Your task to perform on an android device: turn on bluetooth scan Image 0: 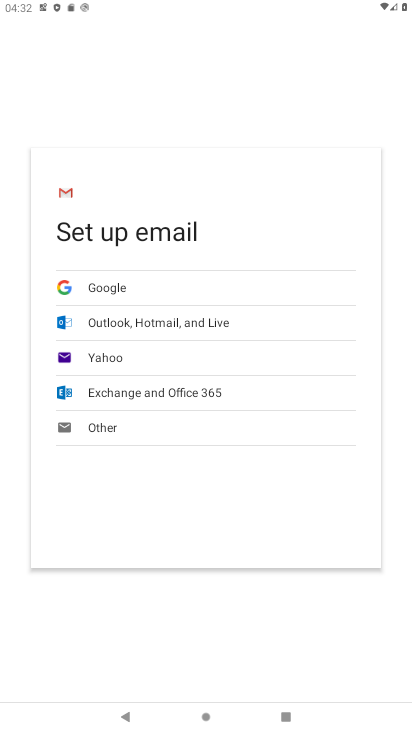
Step 0: press home button
Your task to perform on an android device: turn on bluetooth scan Image 1: 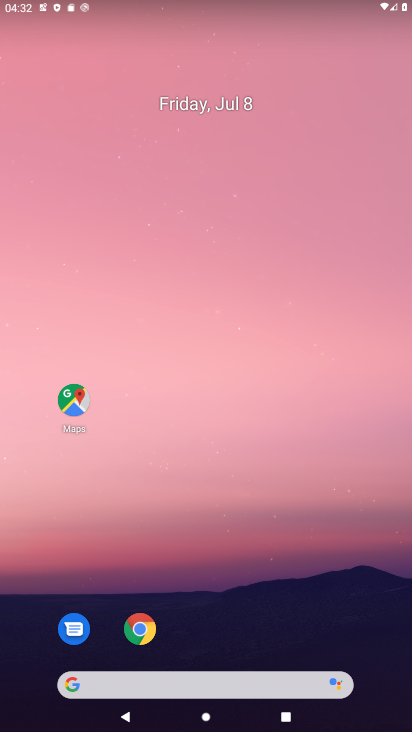
Step 1: drag from (236, 719) to (235, 82)
Your task to perform on an android device: turn on bluetooth scan Image 2: 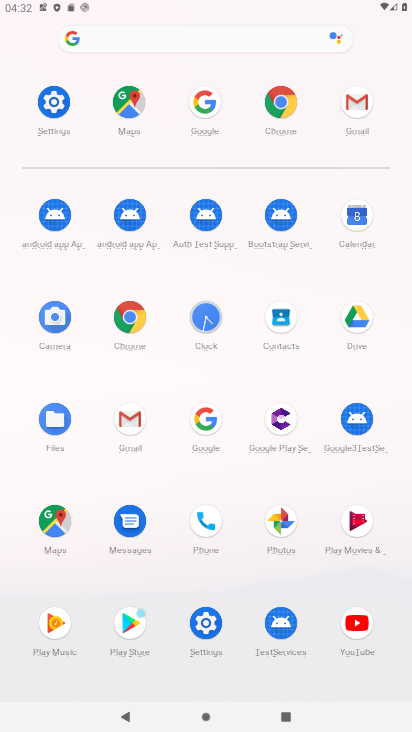
Step 2: click (48, 101)
Your task to perform on an android device: turn on bluetooth scan Image 3: 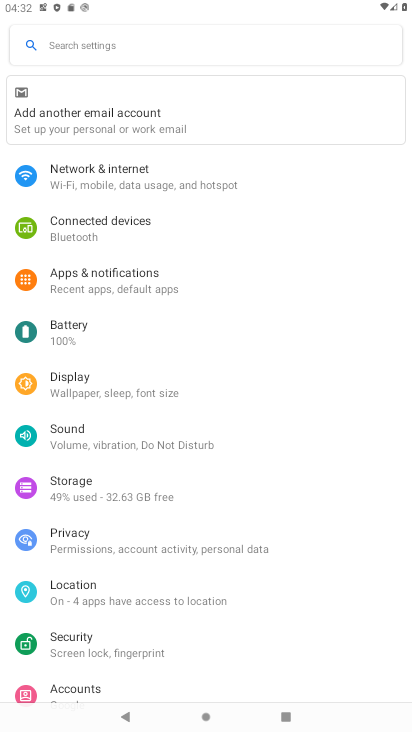
Step 3: click (69, 594)
Your task to perform on an android device: turn on bluetooth scan Image 4: 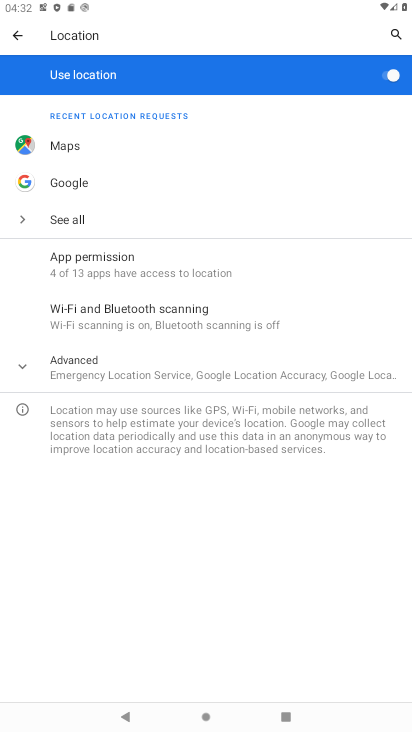
Step 4: click (131, 311)
Your task to perform on an android device: turn on bluetooth scan Image 5: 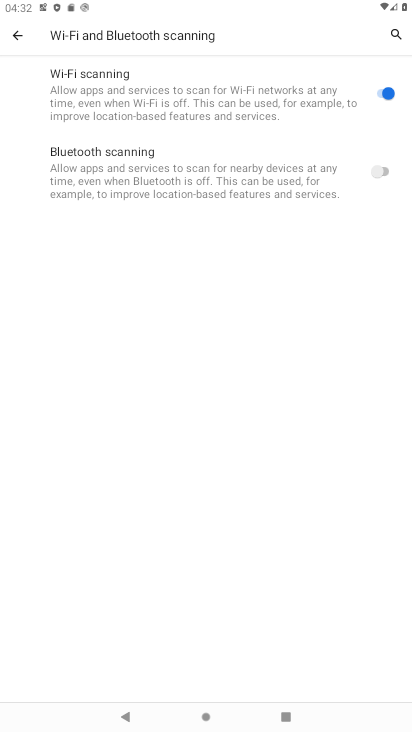
Step 5: click (388, 173)
Your task to perform on an android device: turn on bluetooth scan Image 6: 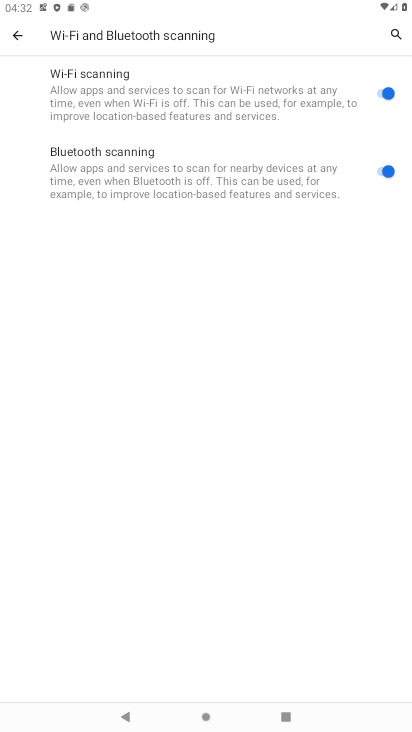
Step 6: task complete